Your task to perform on an android device: choose inbox layout in the gmail app Image 0: 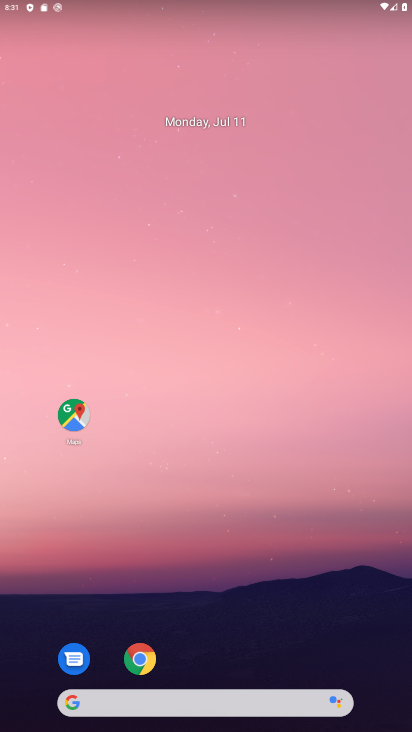
Step 0: drag from (35, 643) to (325, 71)
Your task to perform on an android device: choose inbox layout in the gmail app Image 1: 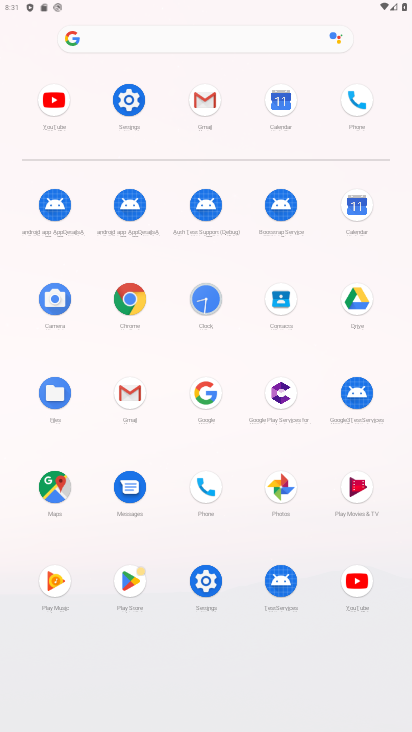
Step 1: click (141, 399)
Your task to perform on an android device: choose inbox layout in the gmail app Image 2: 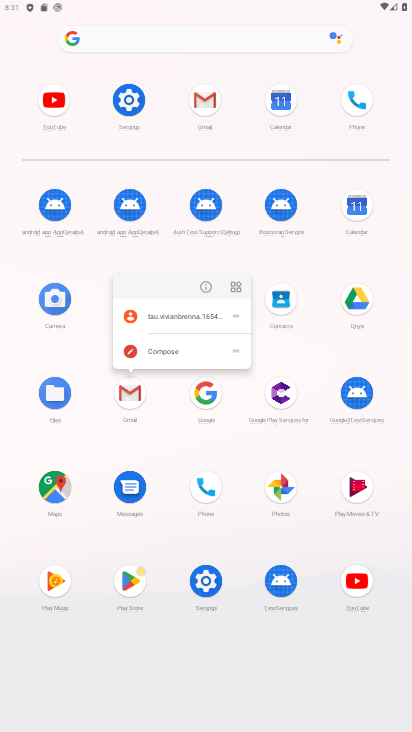
Step 2: click (130, 396)
Your task to perform on an android device: choose inbox layout in the gmail app Image 3: 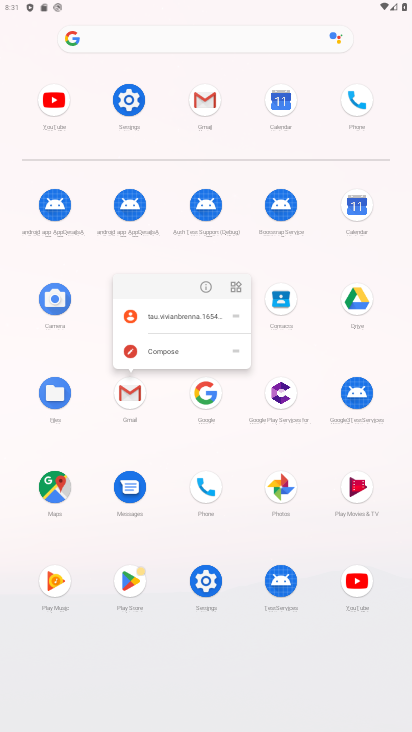
Step 3: click (131, 401)
Your task to perform on an android device: choose inbox layout in the gmail app Image 4: 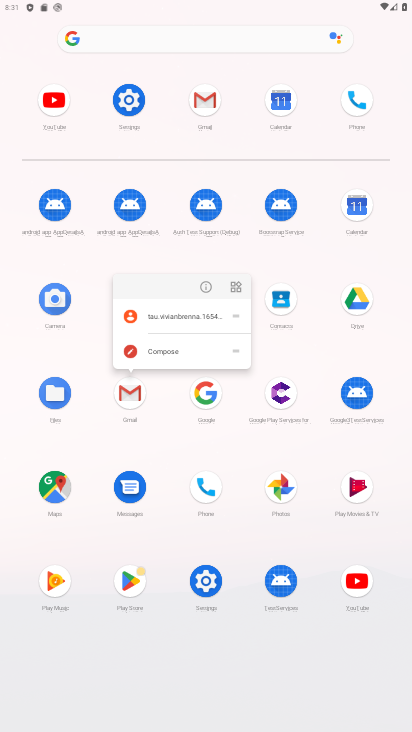
Step 4: click (119, 397)
Your task to perform on an android device: choose inbox layout in the gmail app Image 5: 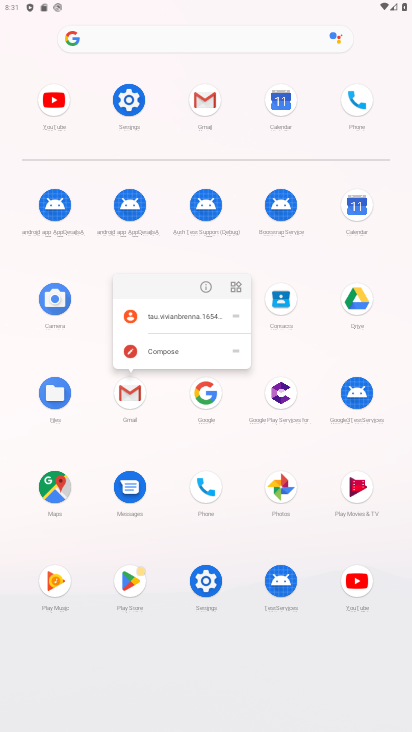
Step 5: task complete